Your task to perform on an android device: Open calendar and show me the second week of next month Image 0: 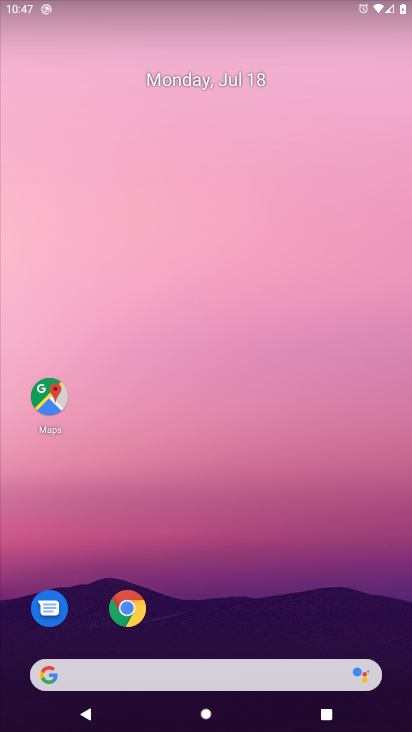
Step 0: drag from (42, 692) to (348, 0)
Your task to perform on an android device: Open calendar and show me the second week of next month Image 1: 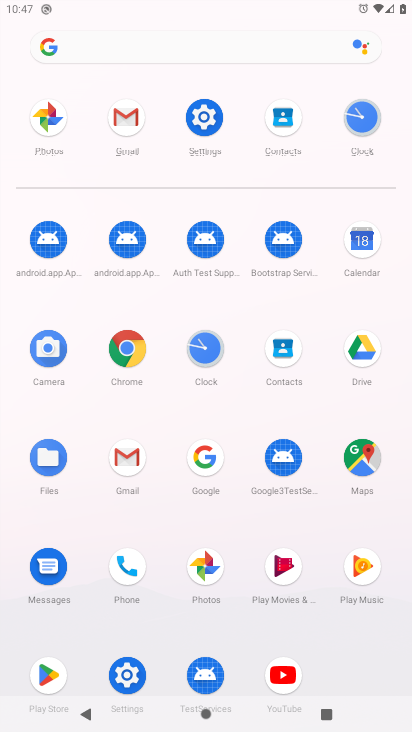
Step 1: click (368, 250)
Your task to perform on an android device: Open calendar and show me the second week of next month Image 2: 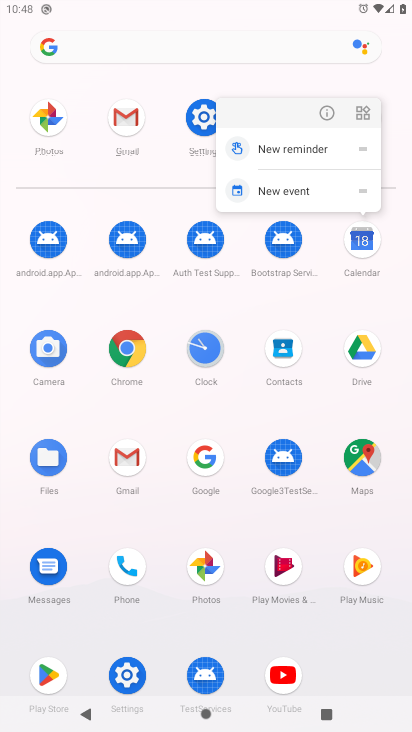
Step 2: click (348, 250)
Your task to perform on an android device: Open calendar and show me the second week of next month Image 3: 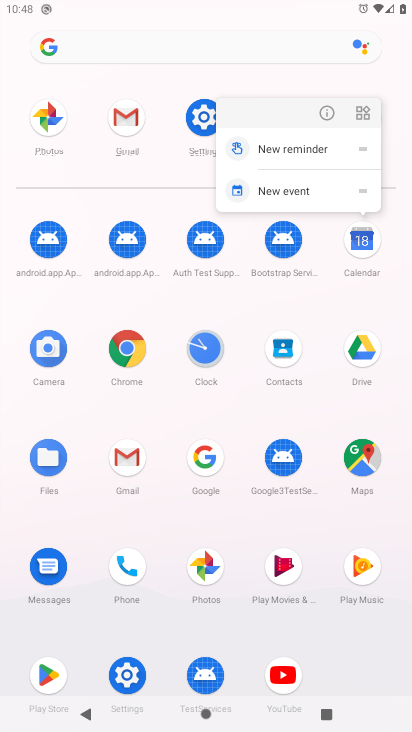
Step 3: click (360, 248)
Your task to perform on an android device: Open calendar and show me the second week of next month Image 4: 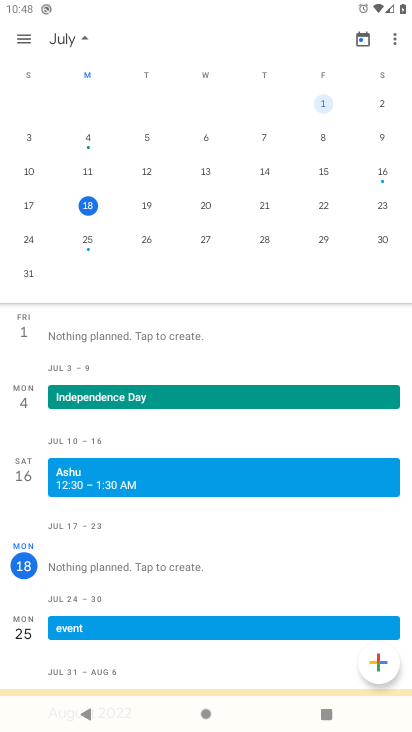
Step 4: drag from (374, 130) to (16, 118)
Your task to perform on an android device: Open calendar and show me the second week of next month Image 5: 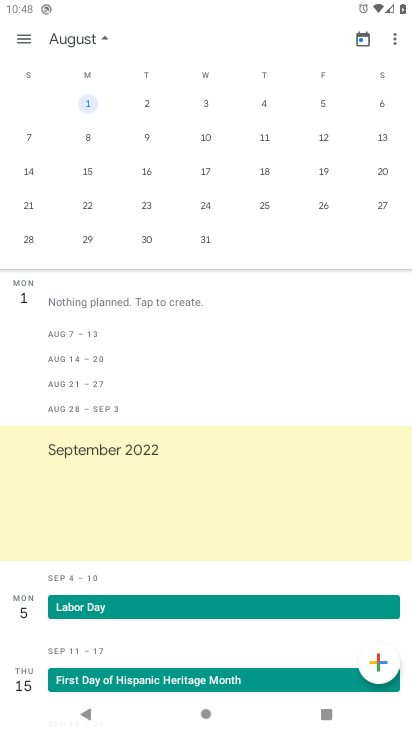
Step 5: click (86, 137)
Your task to perform on an android device: Open calendar and show me the second week of next month Image 6: 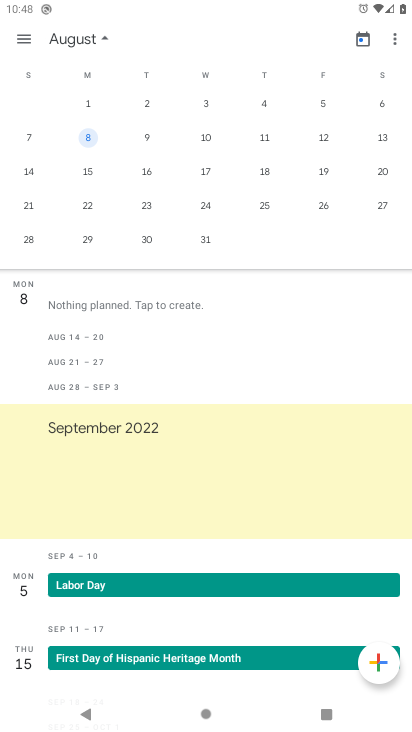
Step 6: task complete